Your task to perform on an android device: Open Chrome and go to the settings page Image 0: 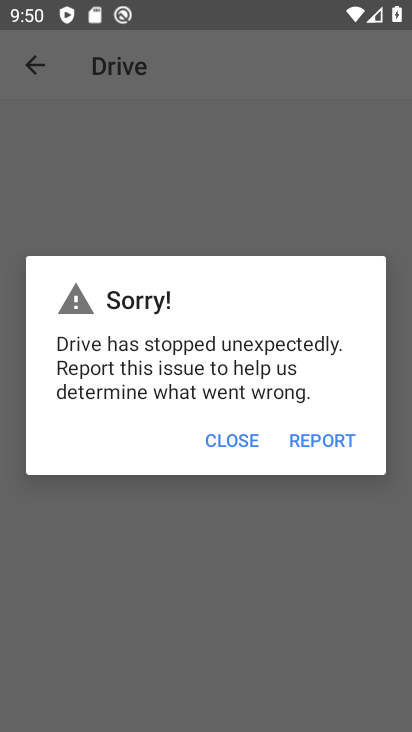
Step 0: press home button
Your task to perform on an android device: Open Chrome and go to the settings page Image 1: 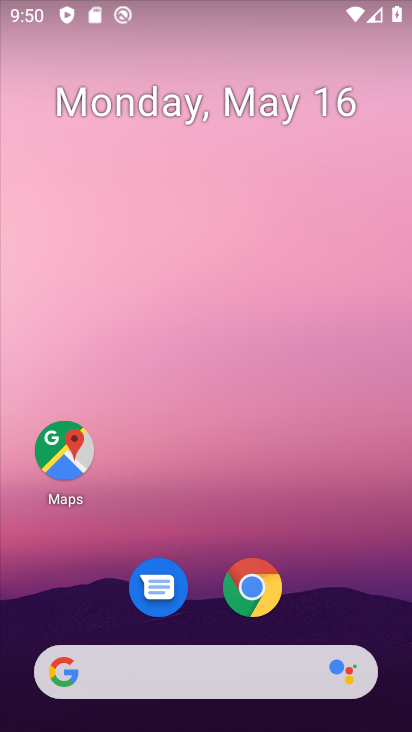
Step 1: drag from (209, 627) to (194, 4)
Your task to perform on an android device: Open Chrome and go to the settings page Image 2: 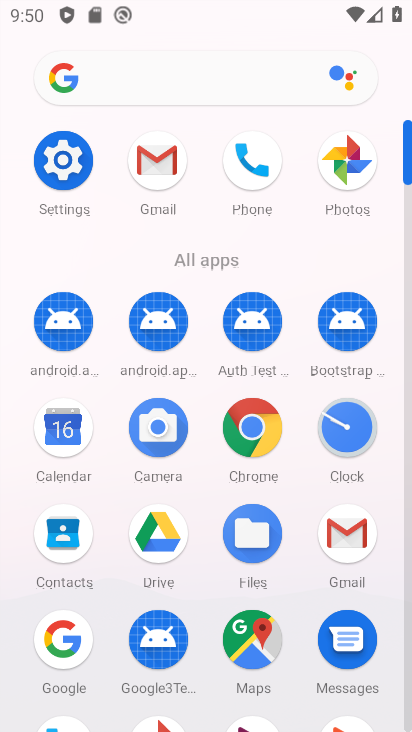
Step 2: click (251, 424)
Your task to perform on an android device: Open Chrome and go to the settings page Image 3: 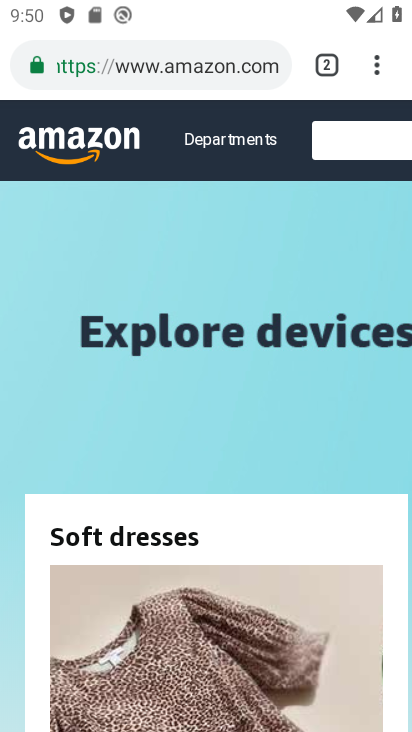
Step 3: task complete